Your task to perform on an android device: delete location history Image 0: 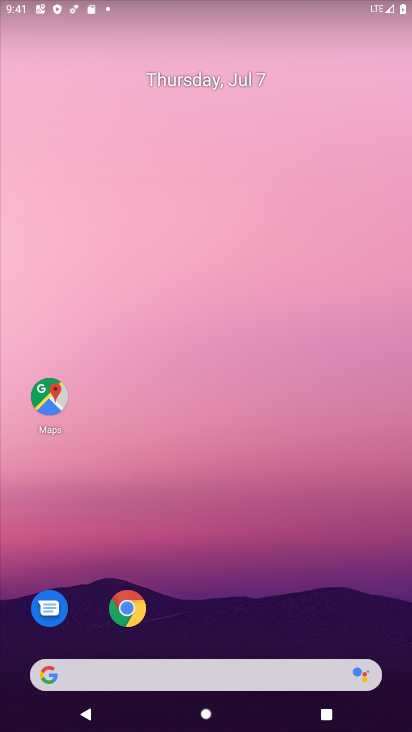
Step 0: drag from (243, 635) to (295, 92)
Your task to perform on an android device: delete location history Image 1: 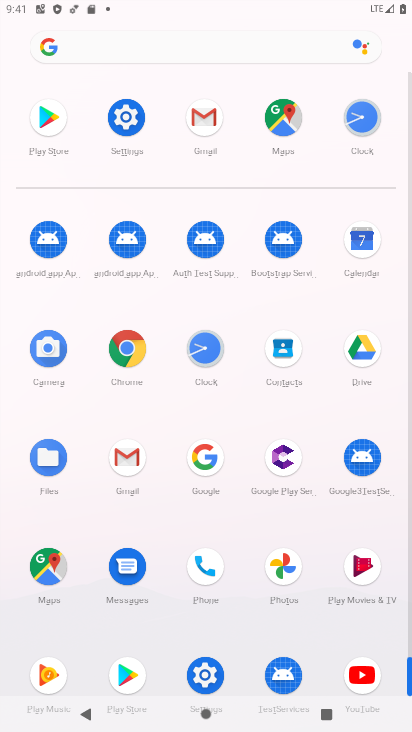
Step 1: click (206, 675)
Your task to perform on an android device: delete location history Image 2: 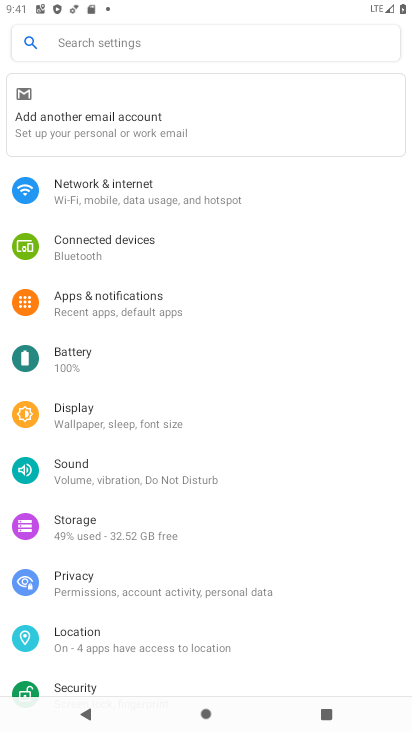
Step 2: click (136, 637)
Your task to perform on an android device: delete location history Image 3: 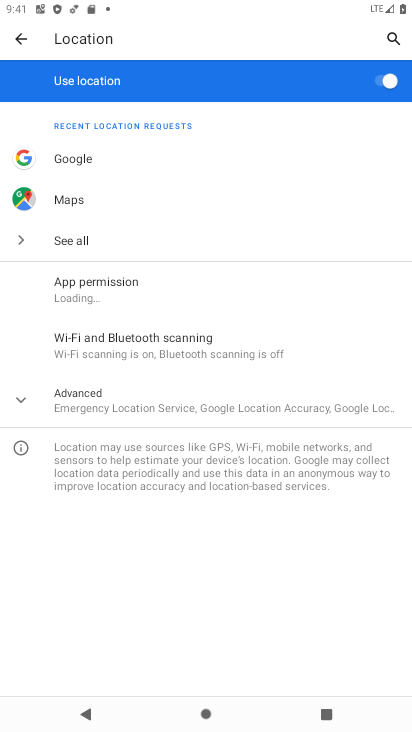
Step 3: click (89, 402)
Your task to perform on an android device: delete location history Image 4: 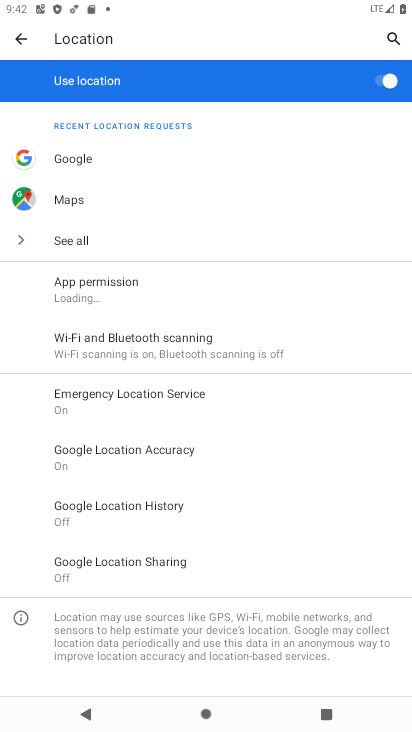
Step 4: click (178, 507)
Your task to perform on an android device: delete location history Image 5: 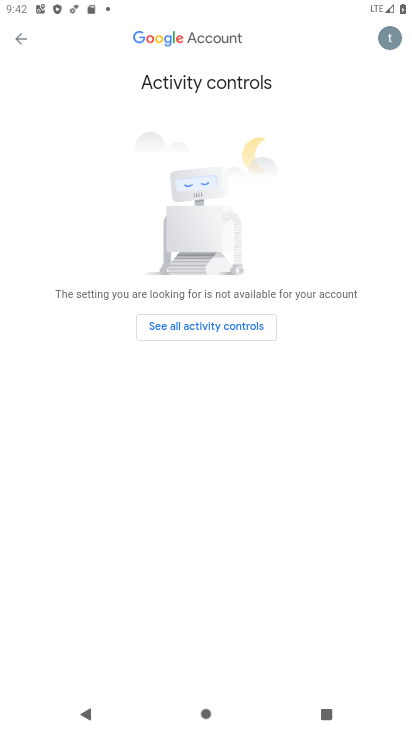
Step 5: task complete